Your task to perform on an android device: Open maps Image 0: 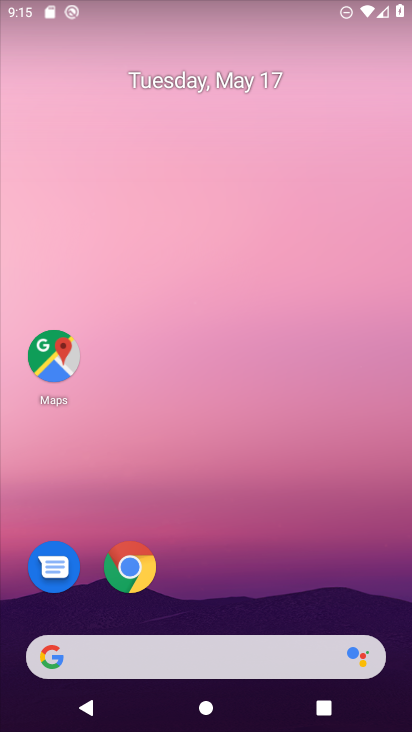
Step 0: click (49, 364)
Your task to perform on an android device: Open maps Image 1: 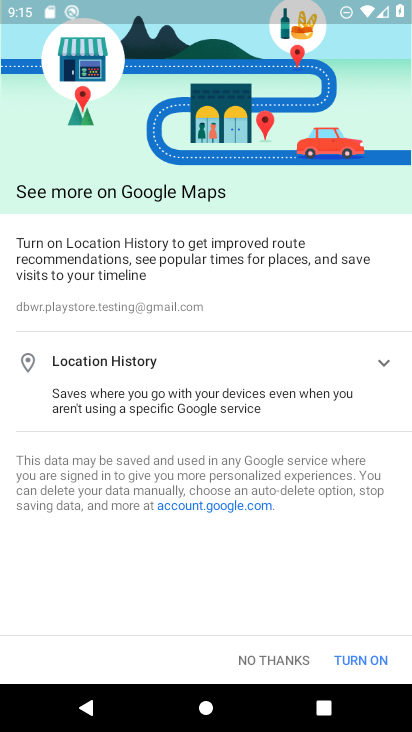
Step 1: click (294, 657)
Your task to perform on an android device: Open maps Image 2: 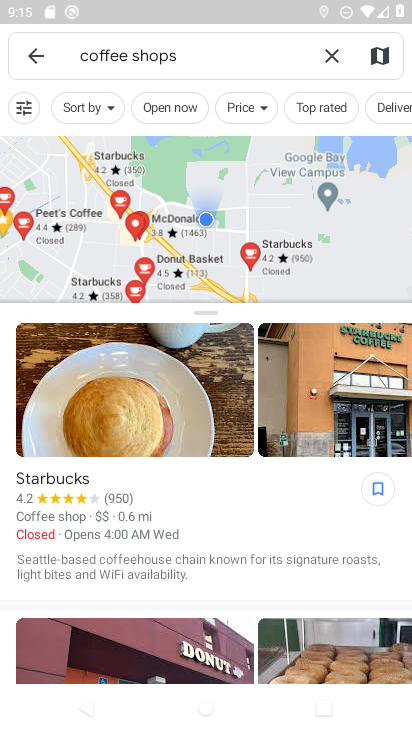
Step 2: task complete